Your task to perform on an android device: turn on airplane mode Image 0: 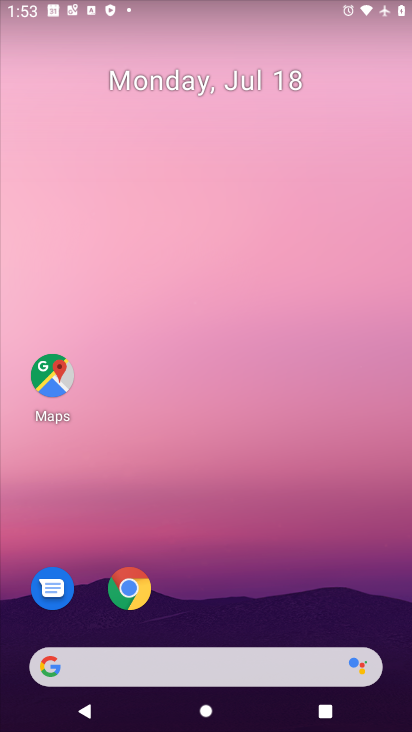
Step 0: drag from (194, 665) to (208, 48)
Your task to perform on an android device: turn on airplane mode Image 1: 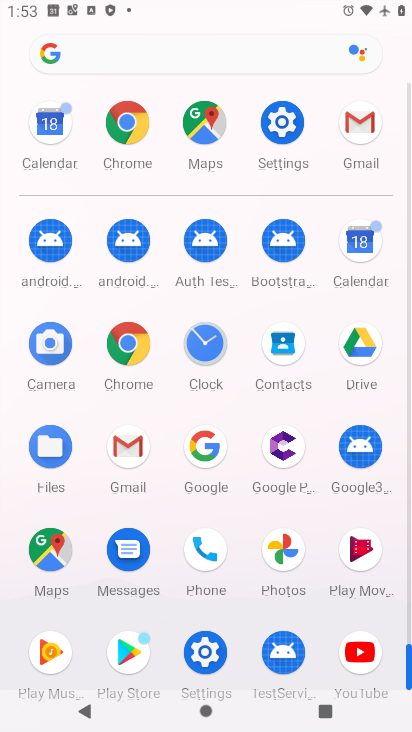
Step 1: click (286, 156)
Your task to perform on an android device: turn on airplane mode Image 2: 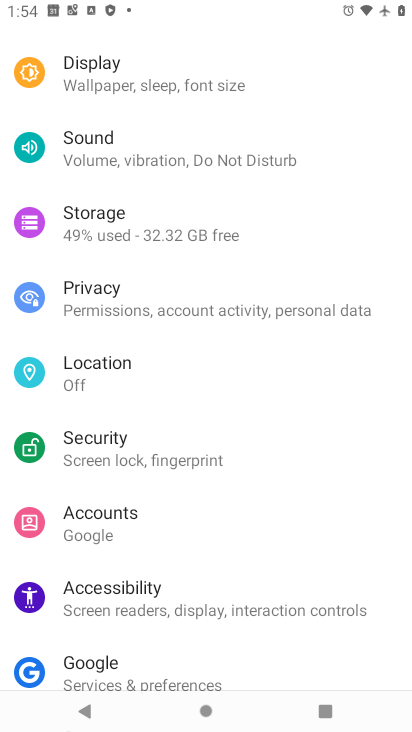
Step 2: drag from (222, 389) to (343, 719)
Your task to perform on an android device: turn on airplane mode Image 3: 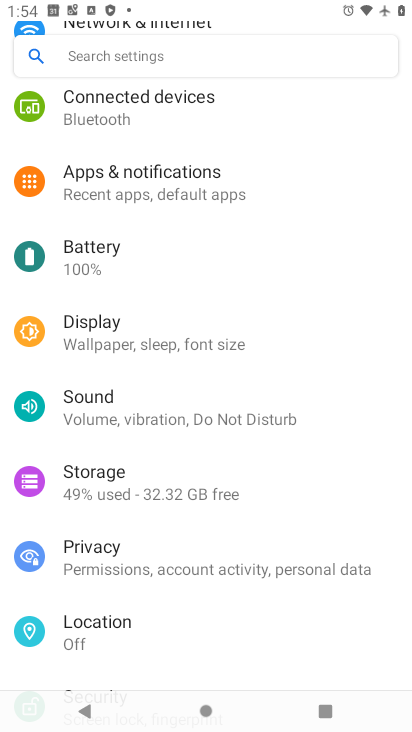
Step 3: drag from (268, 277) to (113, 727)
Your task to perform on an android device: turn on airplane mode Image 4: 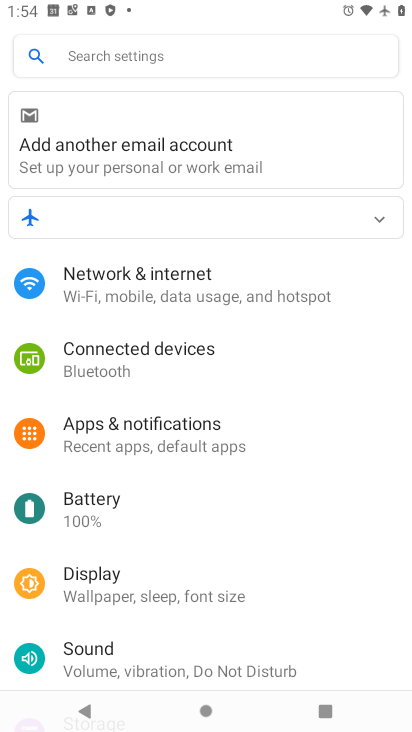
Step 4: click (194, 296)
Your task to perform on an android device: turn on airplane mode Image 5: 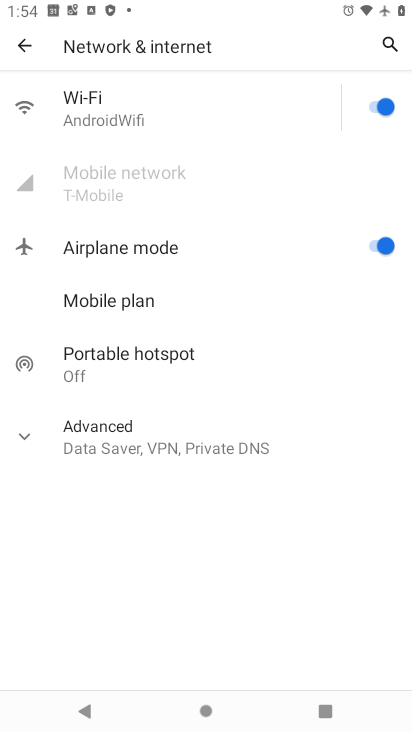
Step 5: task complete